Your task to perform on an android device: toggle data saver in the chrome app Image 0: 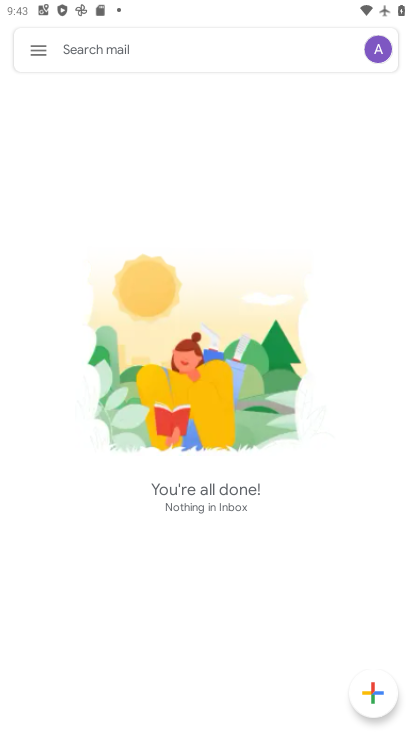
Step 0: press home button
Your task to perform on an android device: toggle data saver in the chrome app Image 1: 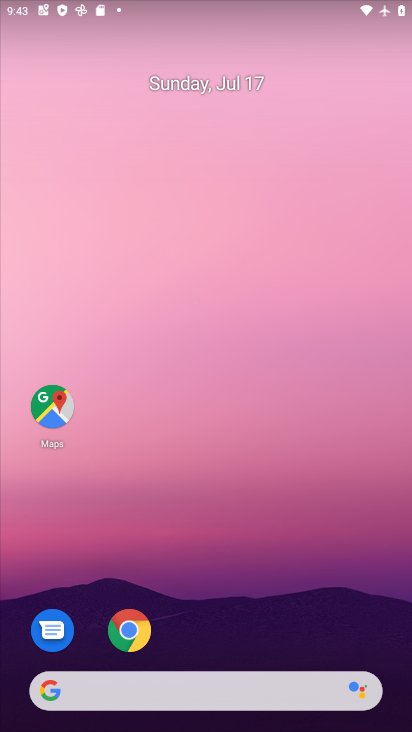
Step 1: click (138, 635)
Your task to perform on an android device: toggle data saver in the chrome app Image 2: 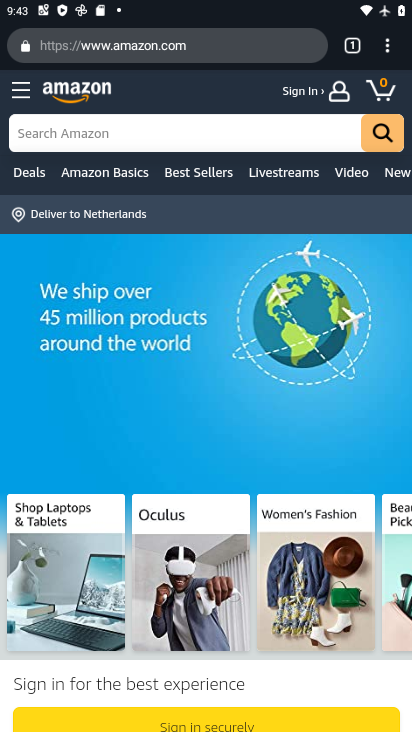
Step 2: click (385, 52)
Your task to perform on an android device: toggle data saver in the chrome app Image 3: 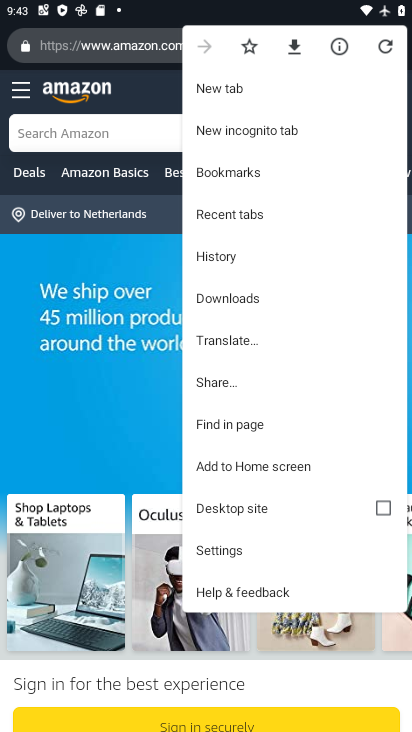
Step 3: click (254, 540)
Your task to perform on an android device: toggle data saver in the chrome app Image 4: 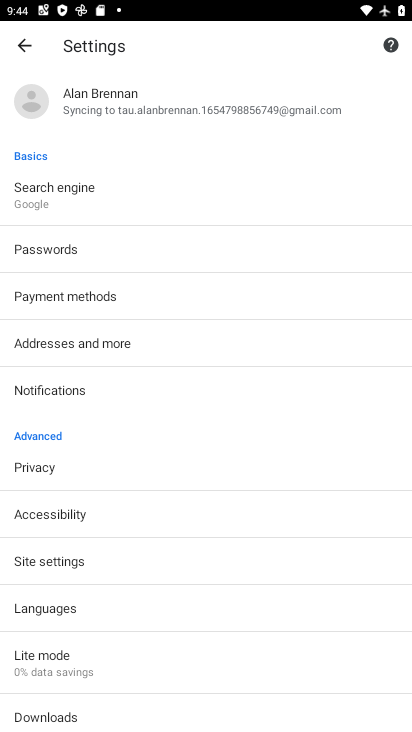
Step 4: click (101, 659)
Your task to perform on an android device: toggle data saver in the chrome app Image 5: 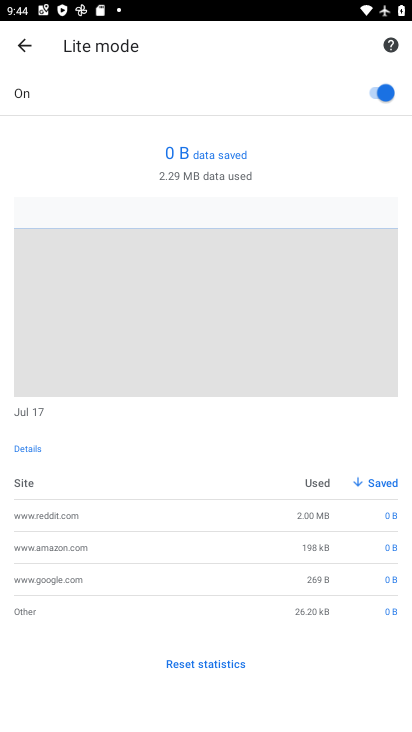
Step 5: click (359, 89)
Your task to perform on an android device: toggle data saver in the chrome app Image 6: 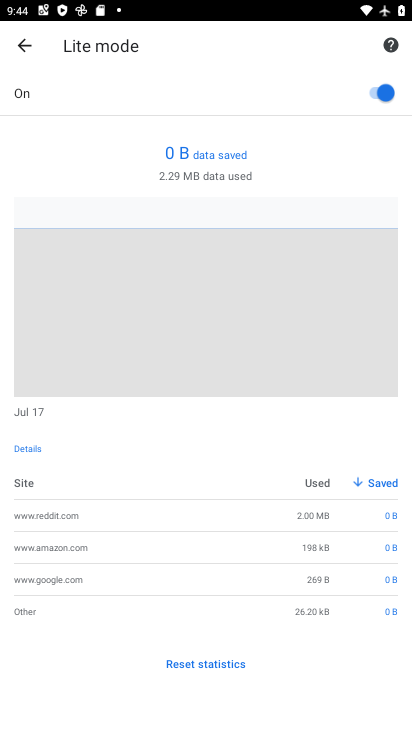
Step 6: task complete